Your task to perform on an android device: turn on notifications settings in the gmail app Image 0: 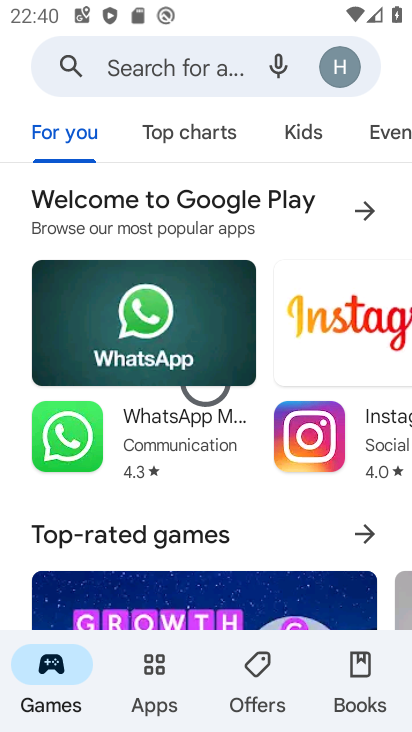
Step 0: press home button
Your task to perform on an android device: turn on notifications settings in the gmail app Image 1: 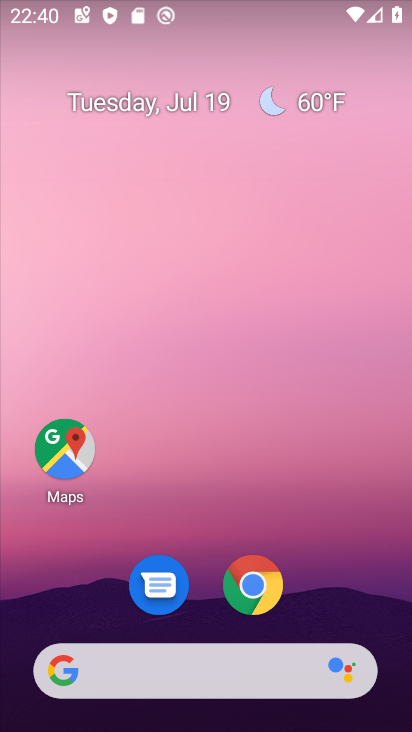
Step 1: drag from (326, 582) to (359, 44)
Your task to perform on an android device: turn on notifications settings in the gmail app Image 2: 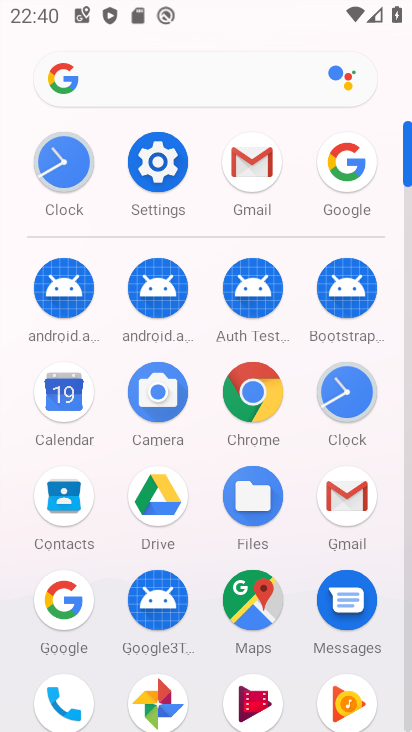
Step 2: click (260, 161)
Your task to perform on an android device: turn on notifications settings in the gmail app Image 3: 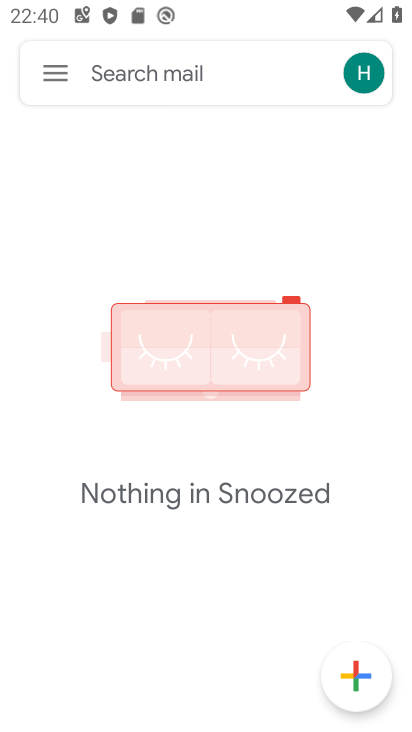
Step 3: click (62, 70)
Your task to perform on an android device: turn on notifications settings in the gmail app Image 4: 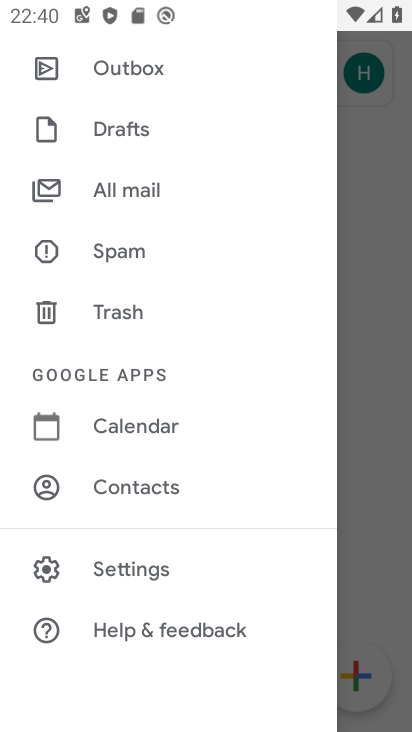
Step 4: click (139, 572)
Your task to perform on an android device: turn on notifications settings in the gmail app Image 5: 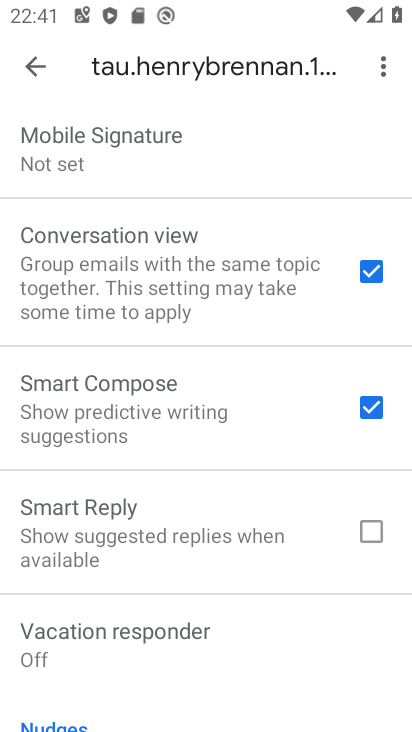
Step 5: drag from (182, 222) to (192, 680)
Your task to perform on an android device: turn on notifications settings in the gmail app Image 6: 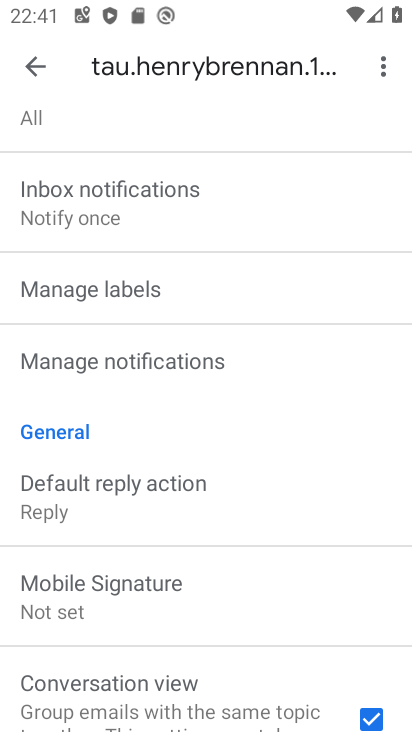
Step 6: click (222, 350)
Your task to perform on an android device: turn on notifications settings in the gmail app Image 7: 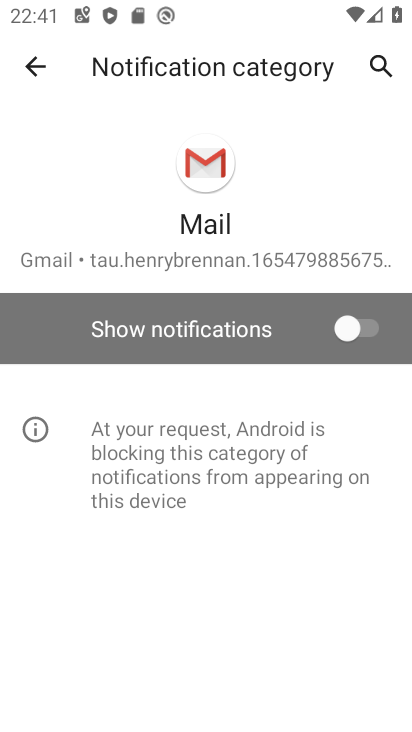
Step 7: click (351, 325)
Your task to perform on an android device: turn on notifications settings in the gmail app Image 8: 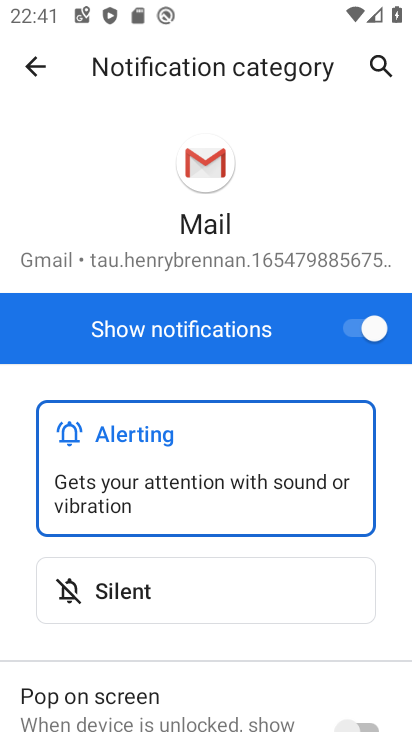
Step 8: task complete